Your task to perform on an android device: What's the weather? Image 0: 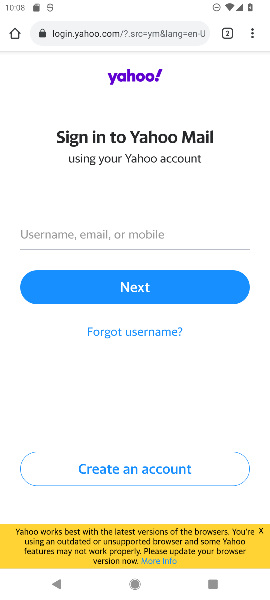
Step 0: drag from (156, 412) to (163, 95)
Your task to perform on an android device: What's the weather? Image 1: 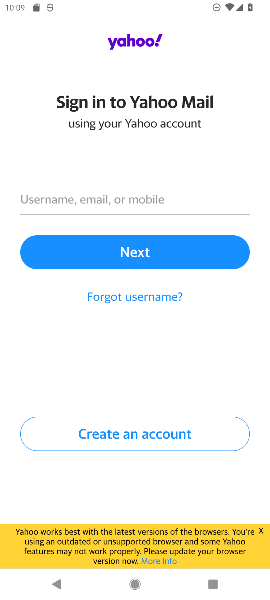
Step 1: press home button
Your task to perform on an android device: What's the weather? Image 2: 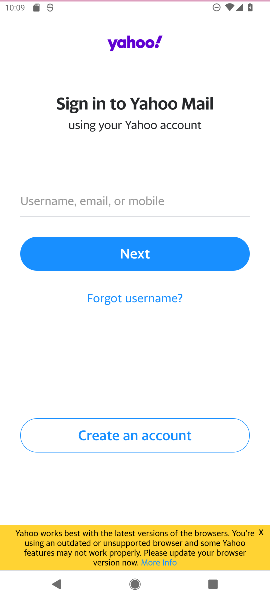
Step 2: drag from (148, 493) to (170, 184)
Your task to perform on an android device: What's the weather? Image 3: 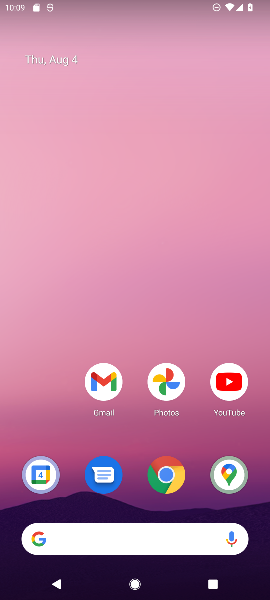
Step 3: drag from (126, 505) to (143, 156)
Your task to perform on an android device: What's the weather? Image 4: 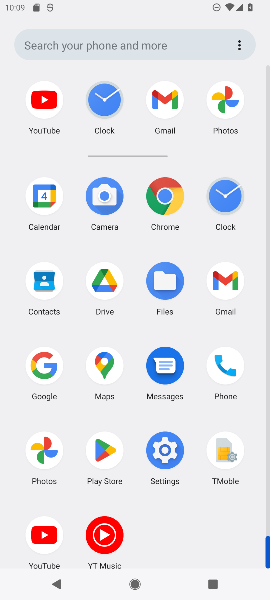
Step 4: click (85, 39)
Your task to perform on an android device: What's the weather? Image 5: 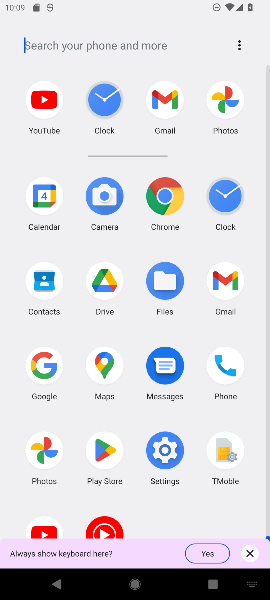
Step 5: type "weather?"
Your task to perform on an android device: What's the weather? Image 6: 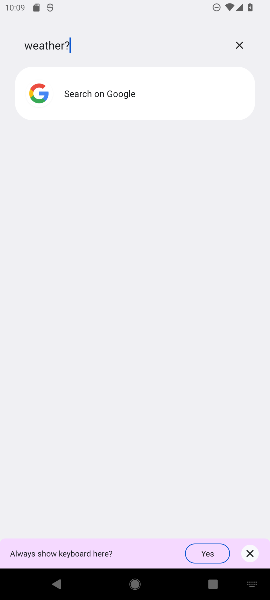
Step 6: type ""
Your task to perform on an android device: What's the weather? Image 7: 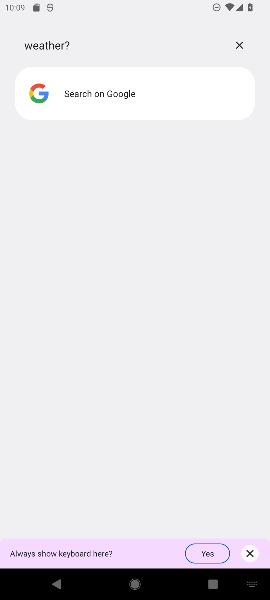
Step 7: click (149, 94)
Your task to perform on an android device: What's the weather? Image 8: 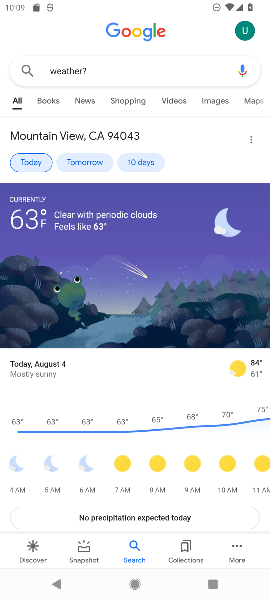
Step 8: task complete